Your task to perform on an android device: open chrome and create a bookmark for the current page Image 0: 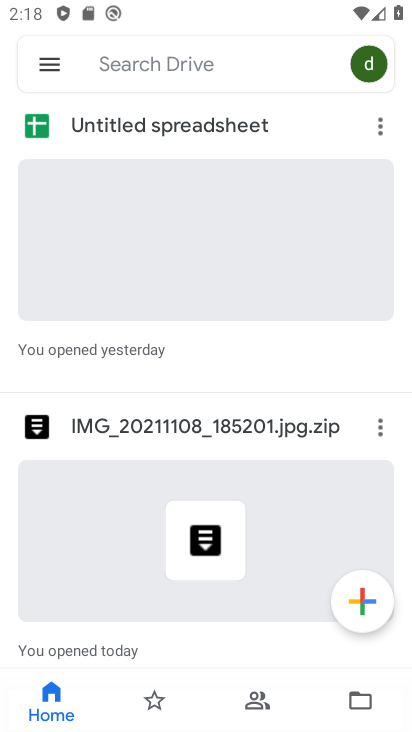
Step 0: press home button
Your task to perform on an android device: open chrome and create a bookmark for the current page Image 1: 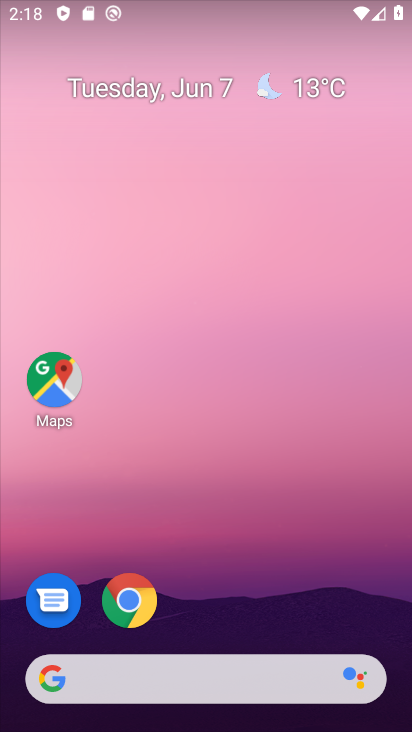
Step 1: click (137, 592)
Your task to perform on an android device: open chrome and create a bookmark for the current page Image 2: 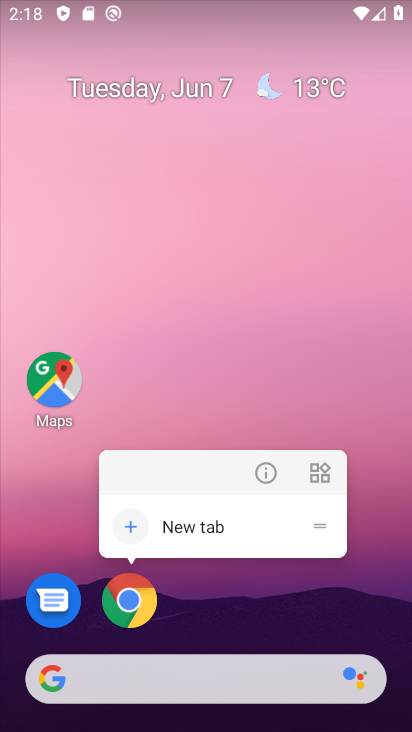
Step 2: click (130, 604)
Your task to perform on an android device: open chrome and create a bookmark for the current page Image 3: 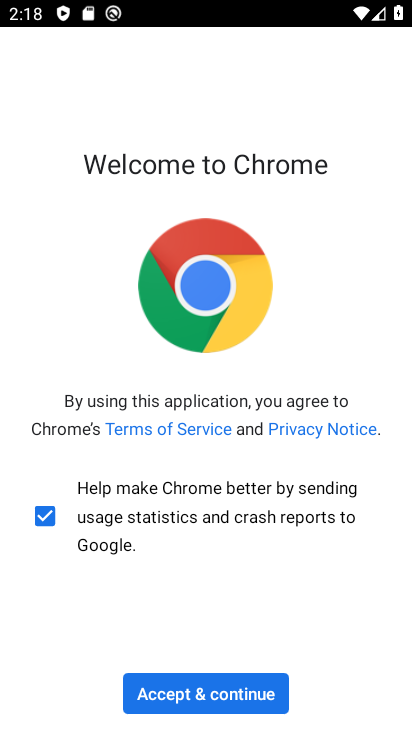
Step 3: click (197, 691)
Your task to perform on an android device: open chrome and create a bookmark for the current page Image 4: 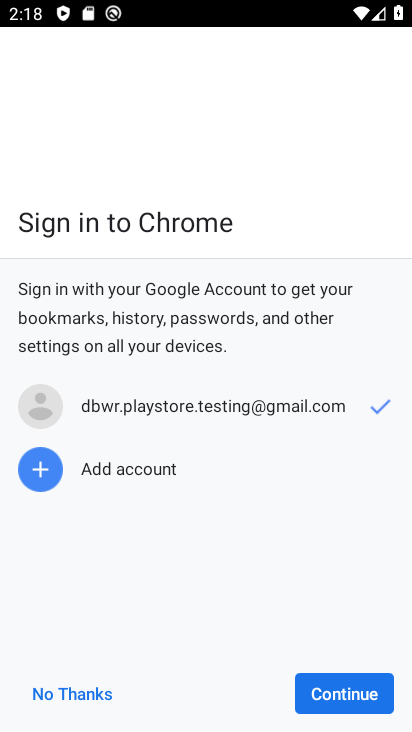
Step 4: click (329, 704)
Your task to perform on an android device: open chrome and create a bookmark for the current page Image 5: 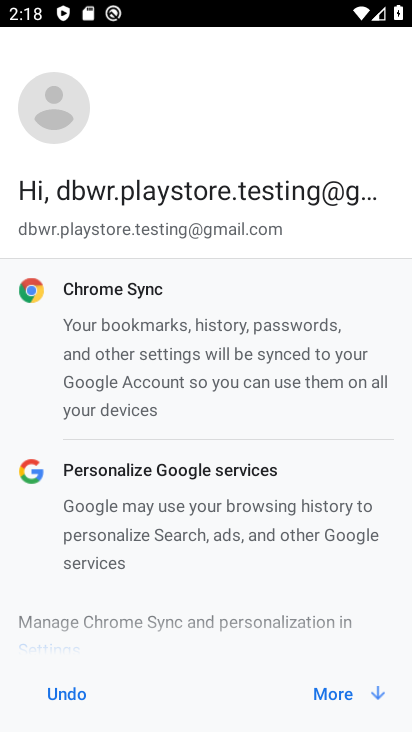
Step 5: click (331, 693)
Your task to perform on an android device: open chrome and create a bookmark for the current page Image 6: 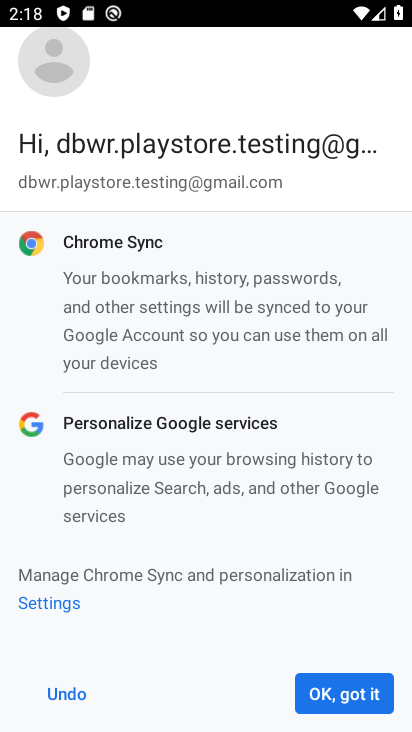
Step 6: click (331, 693)
Your task to perform on an android device: open chrome and create a bookmark for the current page Image 7: 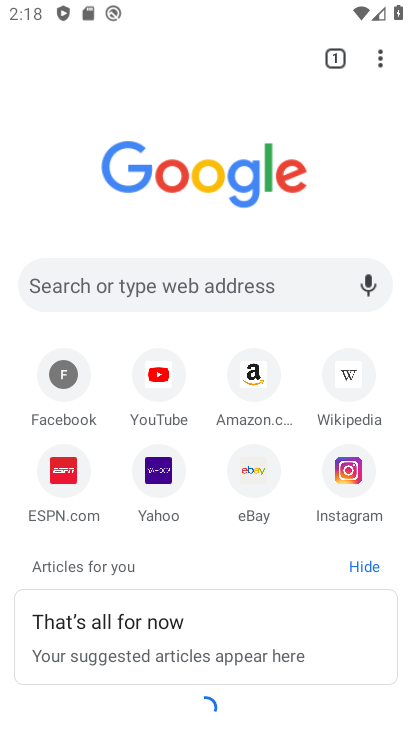
Step 7: click (374, 57)
Your task to perform on an android device: open chrome and create a bookmark for the current page Image 8: 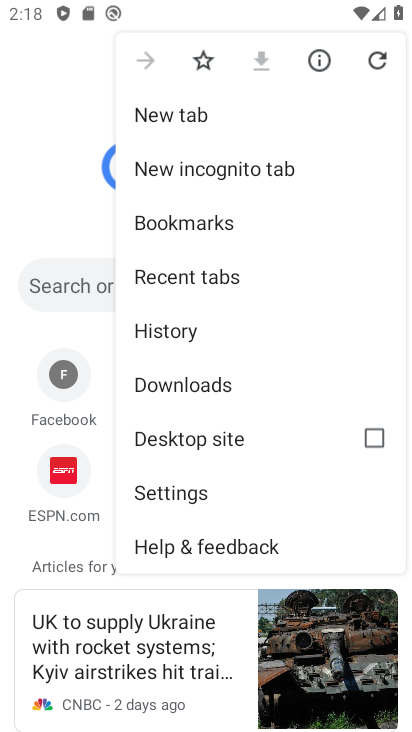
Step 8: click (202, 63)
Your task to perform on an android device: open chrome and create a bookmark for the current page Image 9: 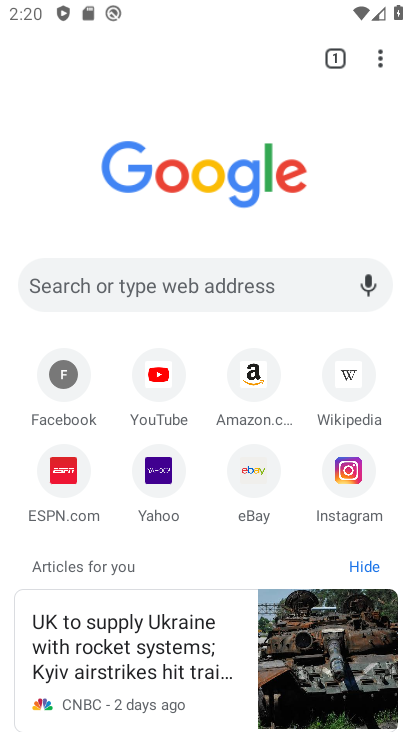
Step 9: task complete